Your task to perform on an android device: change the clock display to analog Image 0: 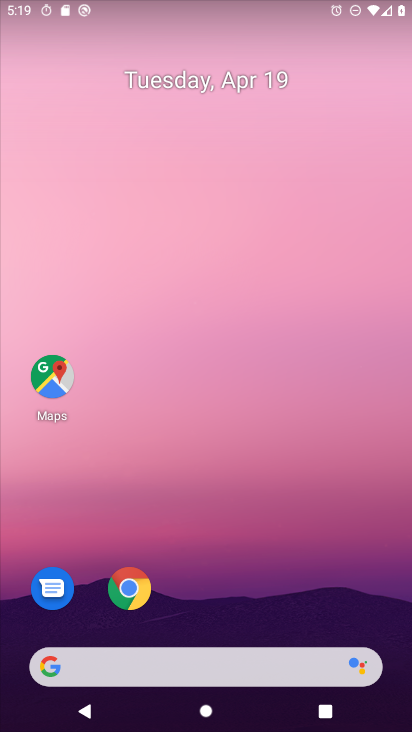
Step 0: drag from (222, 597) to (206, 154)
Your task to perform on an android device: change the clock display to analog Image 1: 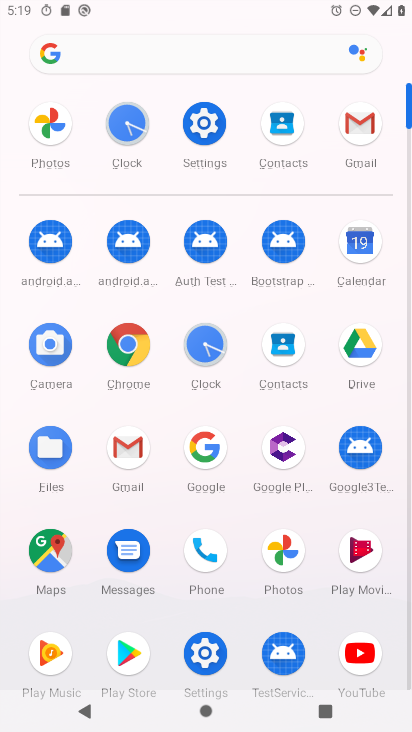
Step 1: click (128, 131)
Your task to perform on an android device: change the clock display to analog Image 2: 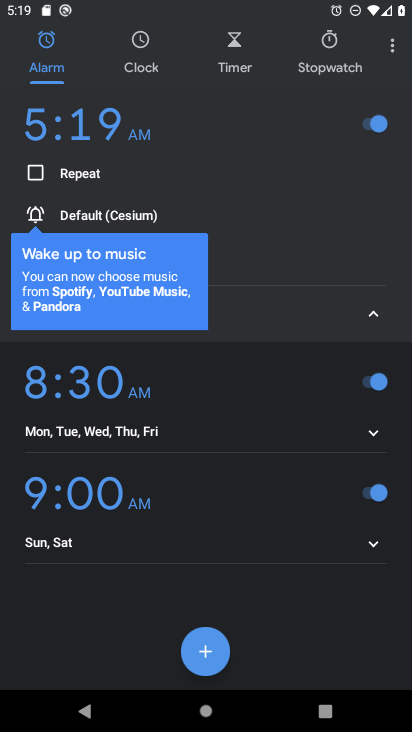
Step 2: click (385, 38)
Your task to perform on an android device: change the clock display to analog Image 3: 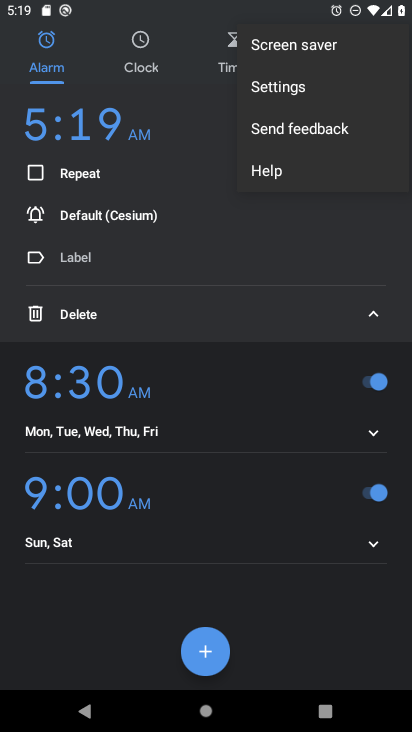
Step 3: click (284, 94)
Your task to perform on an android device: change the clock display to analog Image 4: 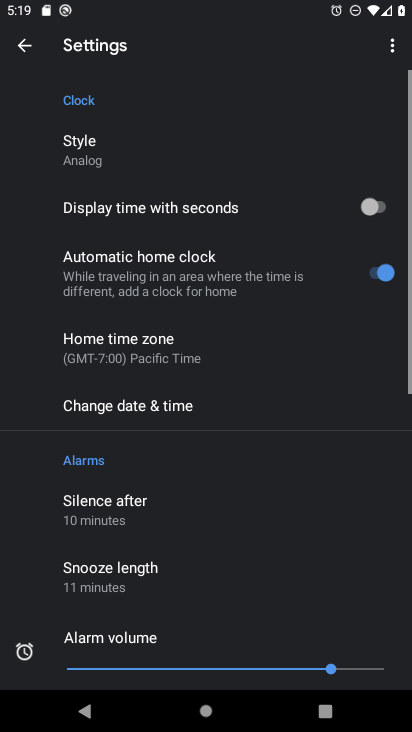
Step 4: click (126, 148)
Your task to perform on an android device: change the clock display to analog Image 5: 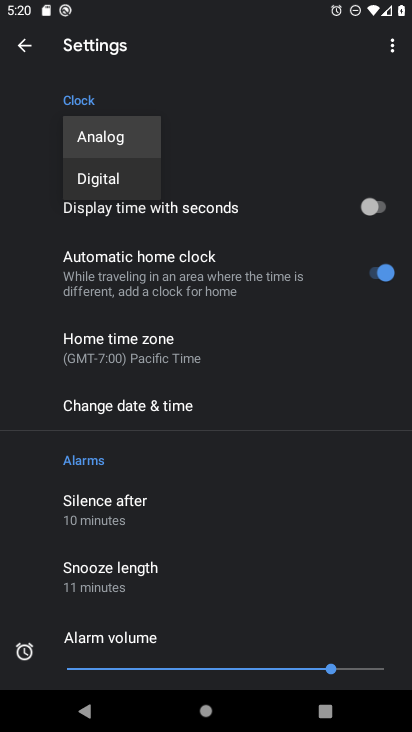
Step 5: click (135, 149)
Your task to perform on an android device: change the clock display to analog Image 6: 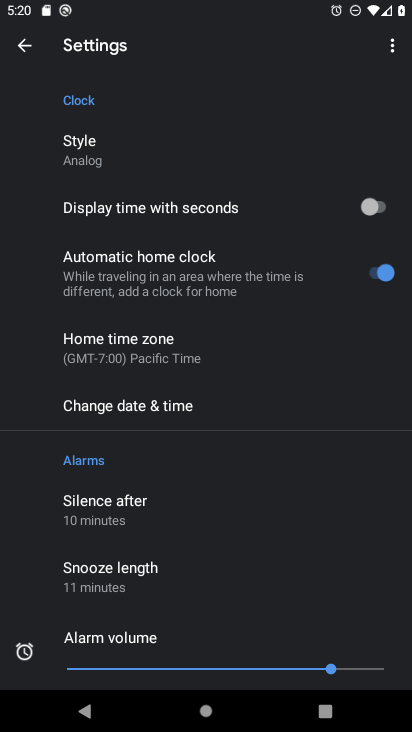
Step 6: task complete